Your task to perform on an android device: What's the weather? Image 0: 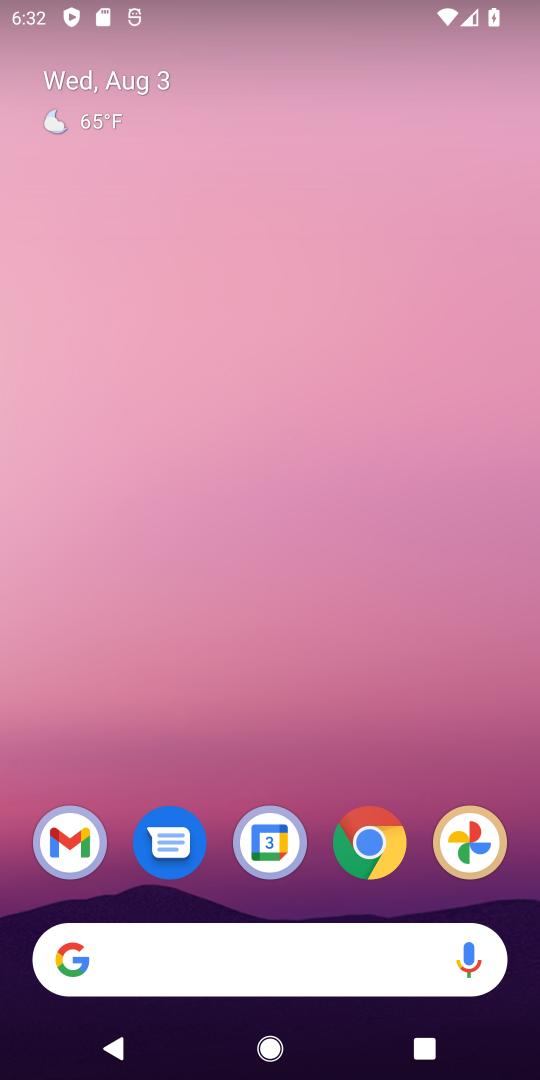
Step 0: click (296, 942)
Your task to perform on an android device: What's the weather? Image 1: 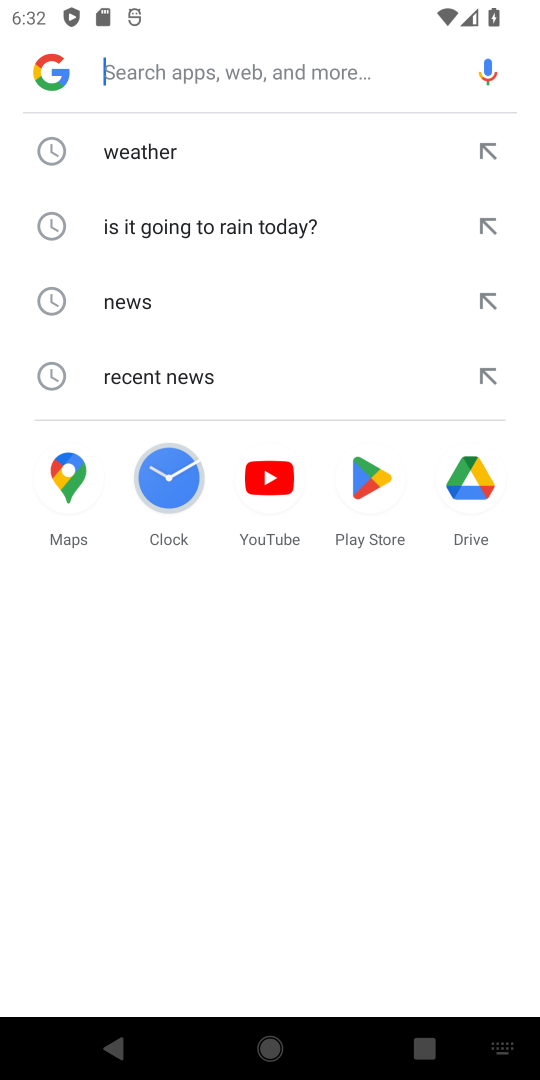
Step 1: type "What's the weather?What's the weather?"
Your task to perform on an android device: What's the weather? Image 2: 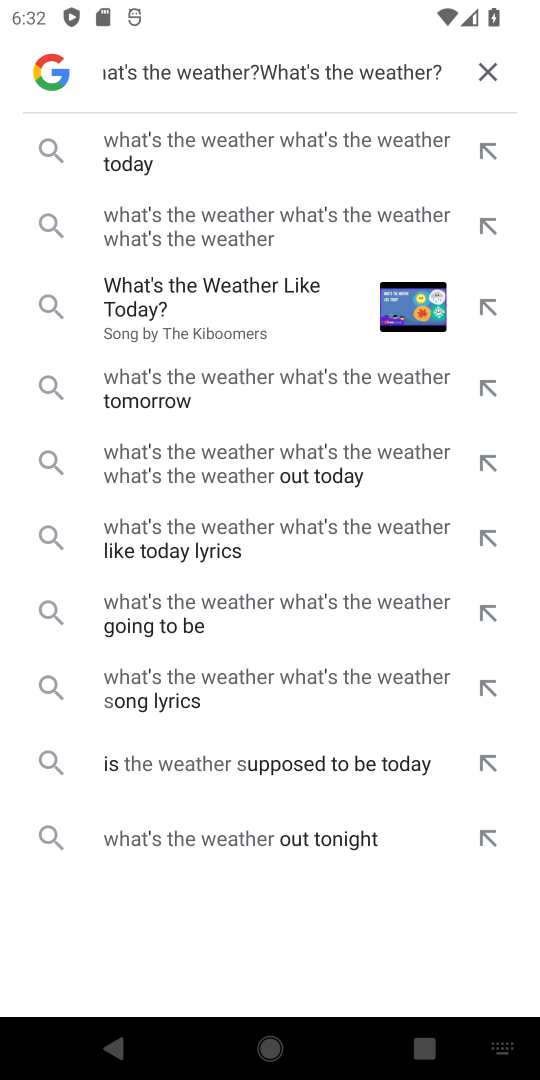
Step 2: click (482, 66)
Your task to perform on an android device: What's the weather? Image 3: 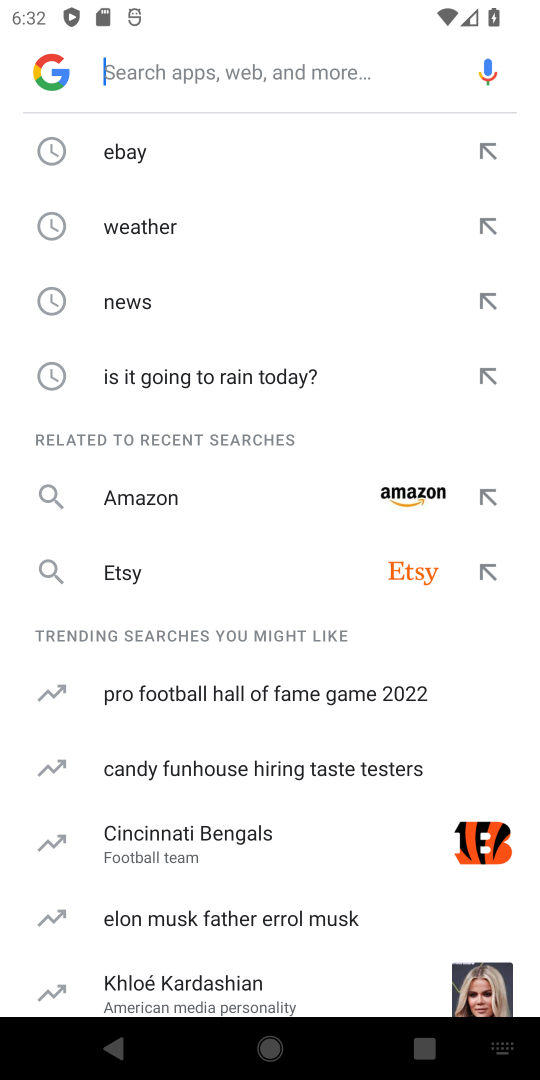
Step 3: type "What's the weather?"
Your task to perform on an android device: What's the weather? Image 4: 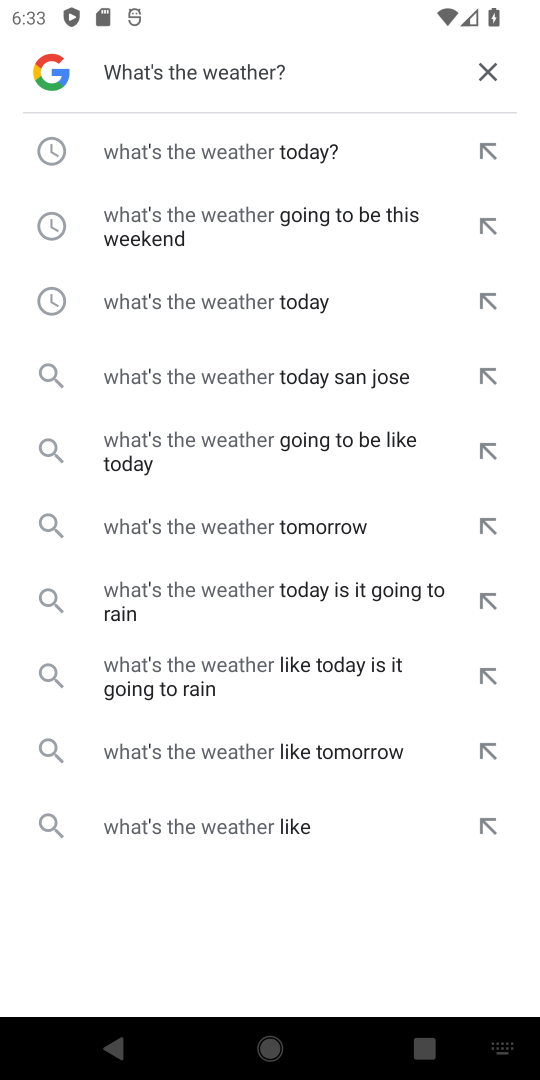
Step 4: press enter
Your task to perform on an android device: What's the weather? Image 5: 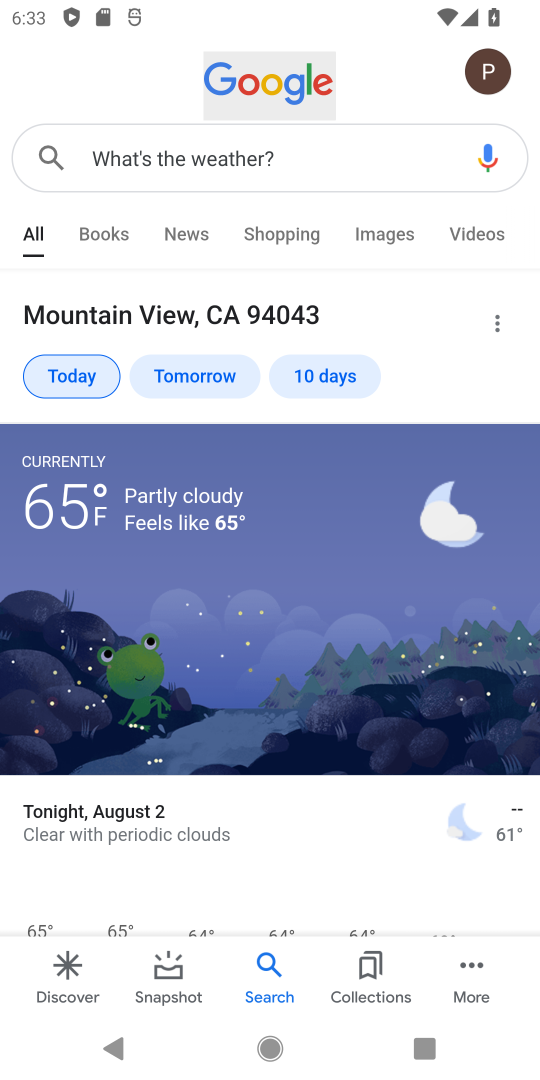
Step 5: task complete